Your task to perform on an android device: open wifi settings Image 0: 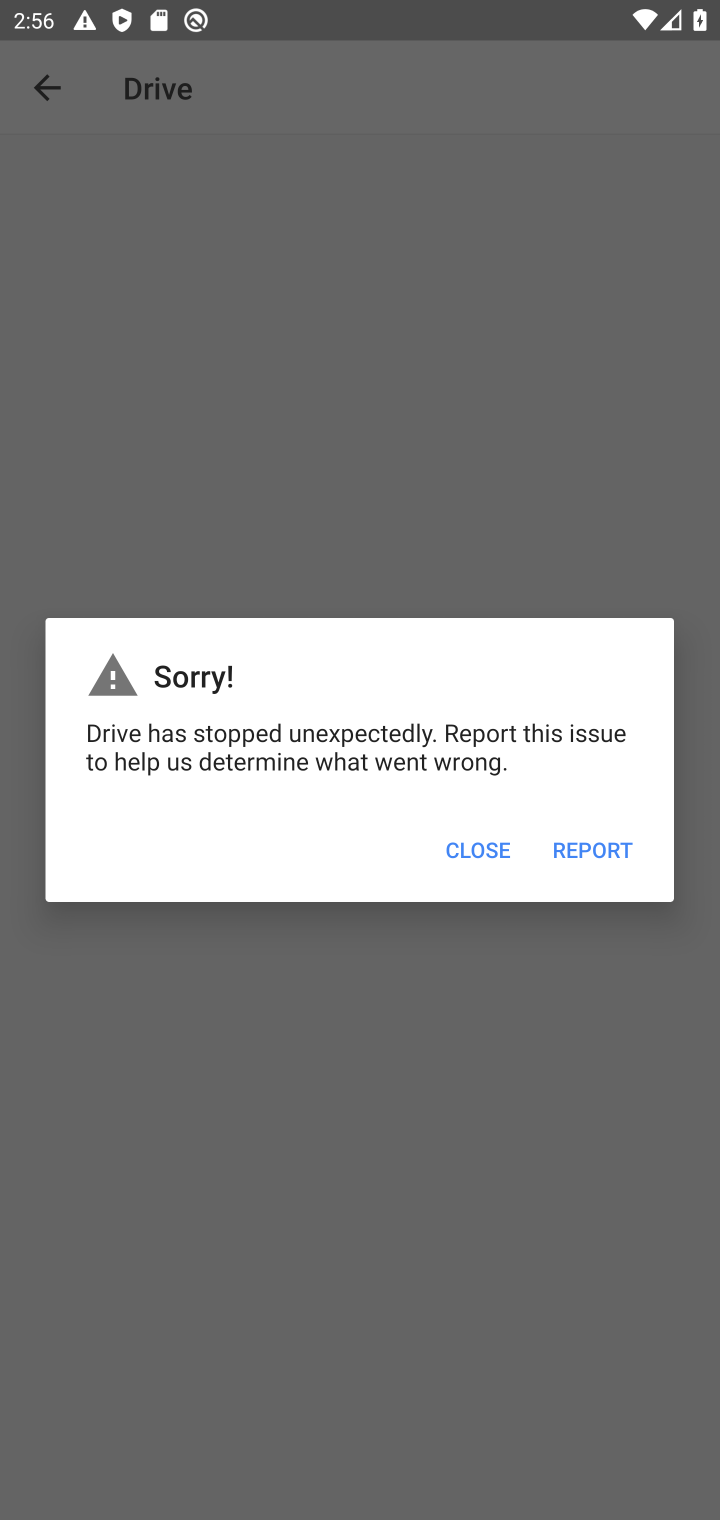
Step 0: press home button
Your task to perform on an android device: open wifi settings Image 1: 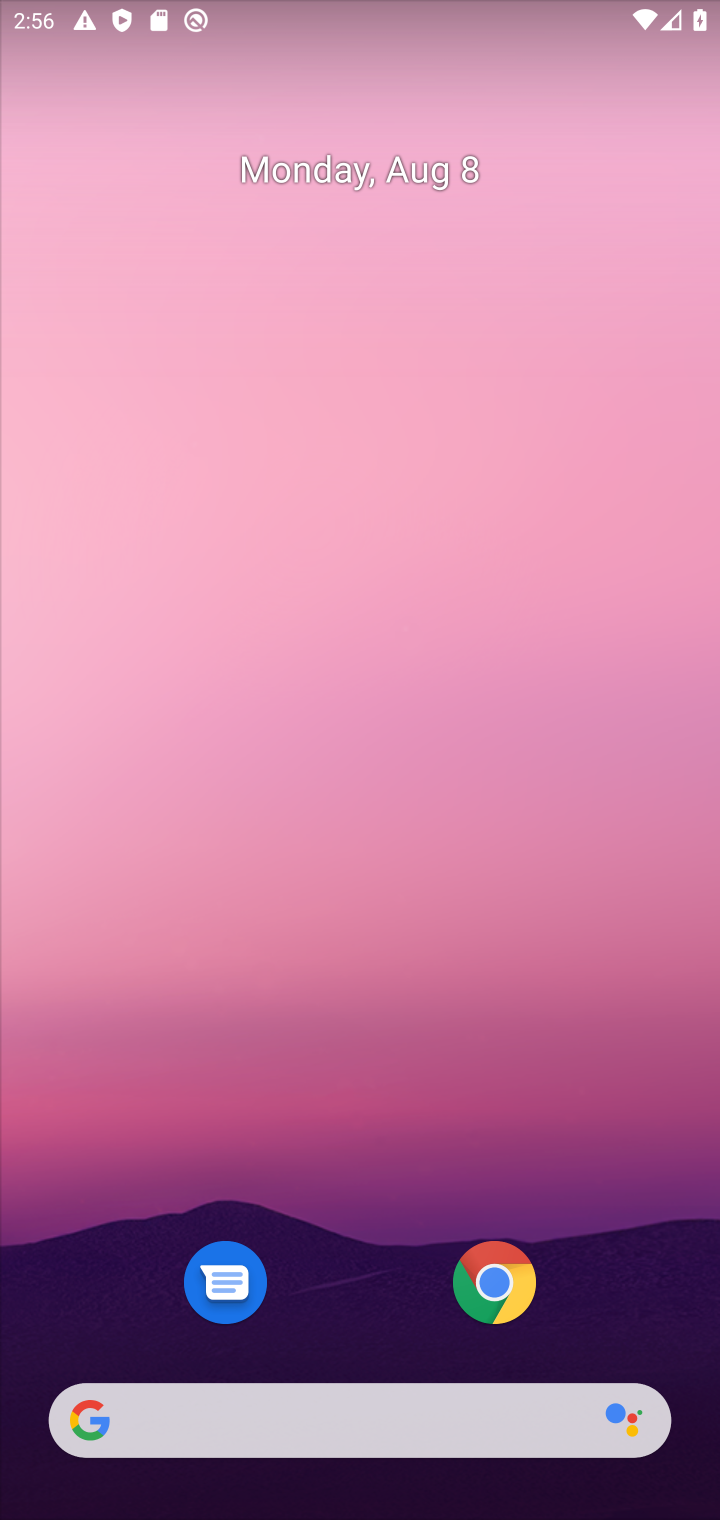
Step 1: drag from (621, 1227) to (596, 145)
Your task to perform on an android device: open wifi settings Image 2: 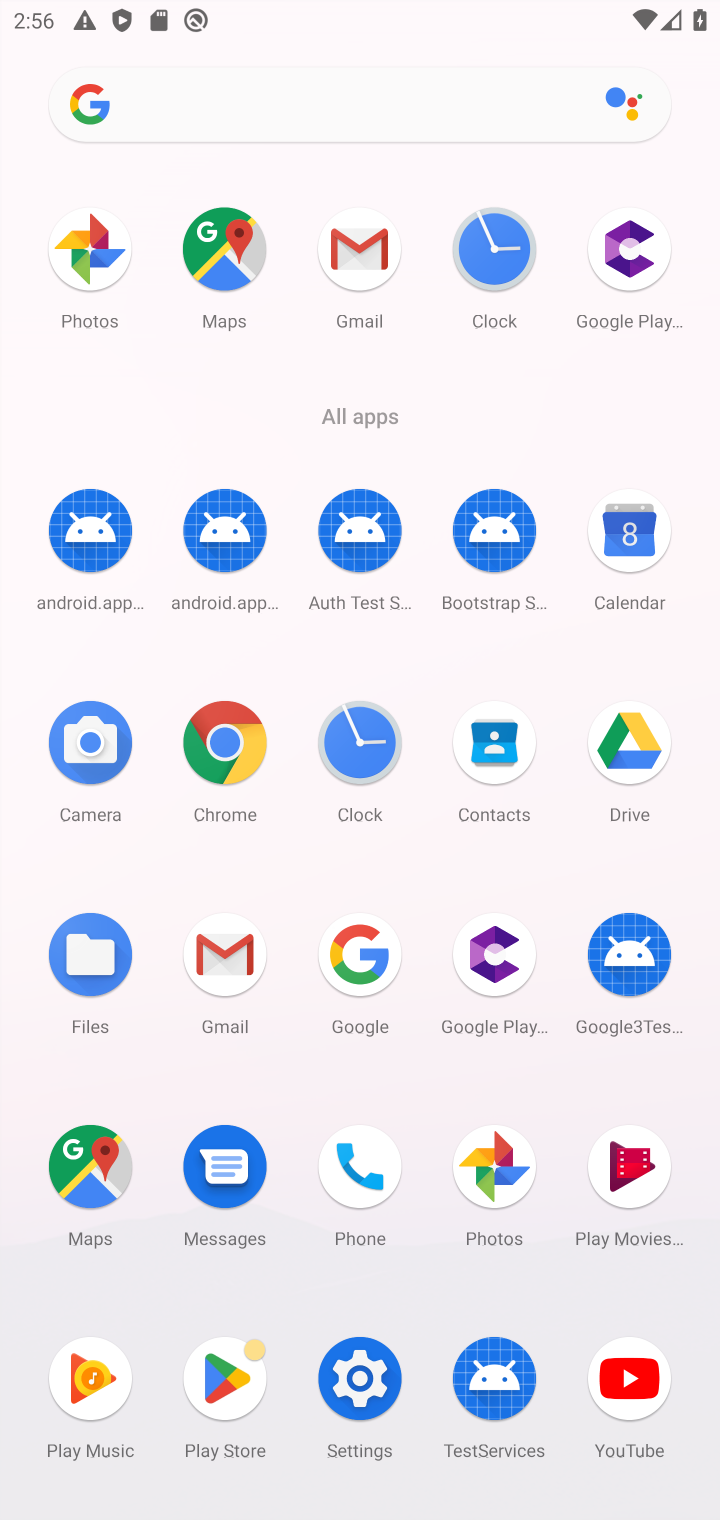
Step 2: click (353, 1375)
Your task to perform on an android device: open wifi settings Image 3: 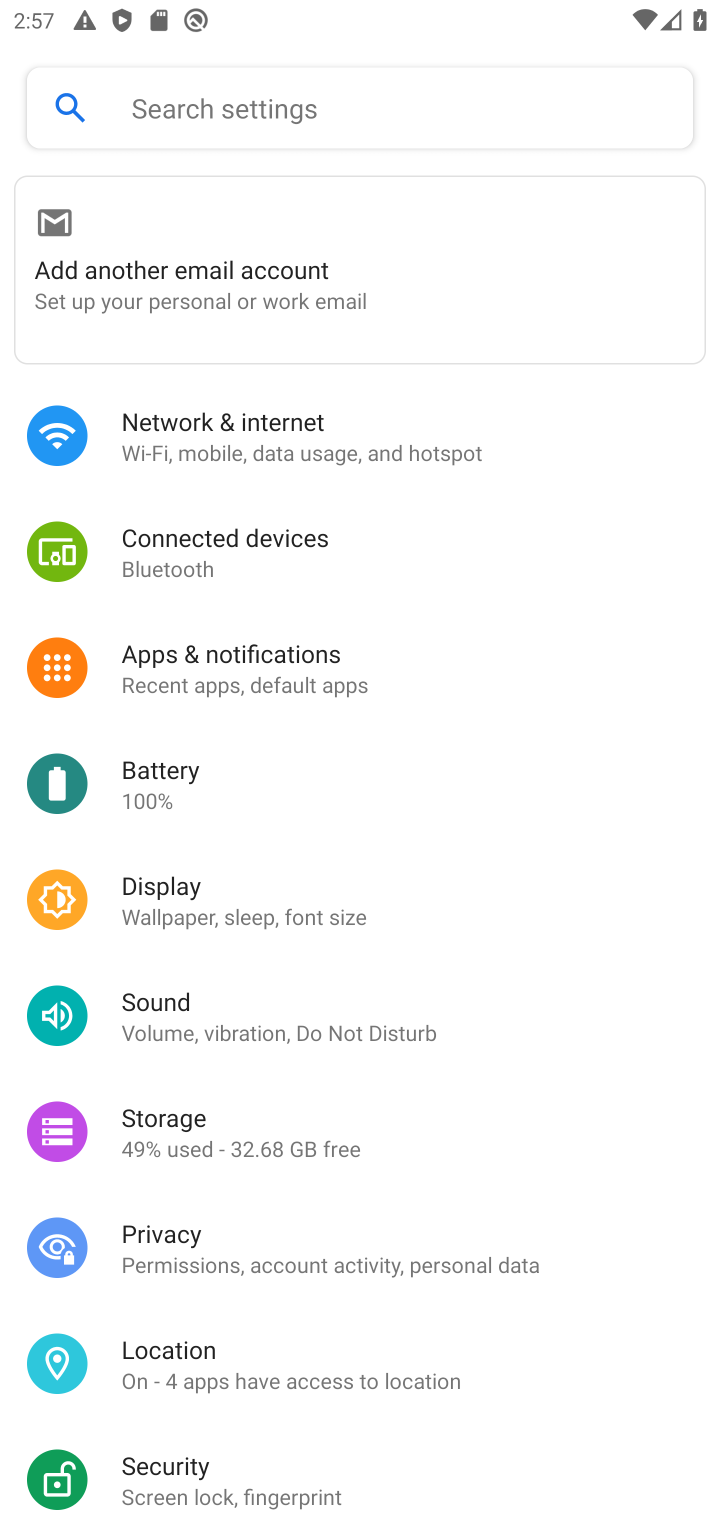
Step 3: click (312, 423)
Your task to perform on an android device: open wifi settings Image 4: 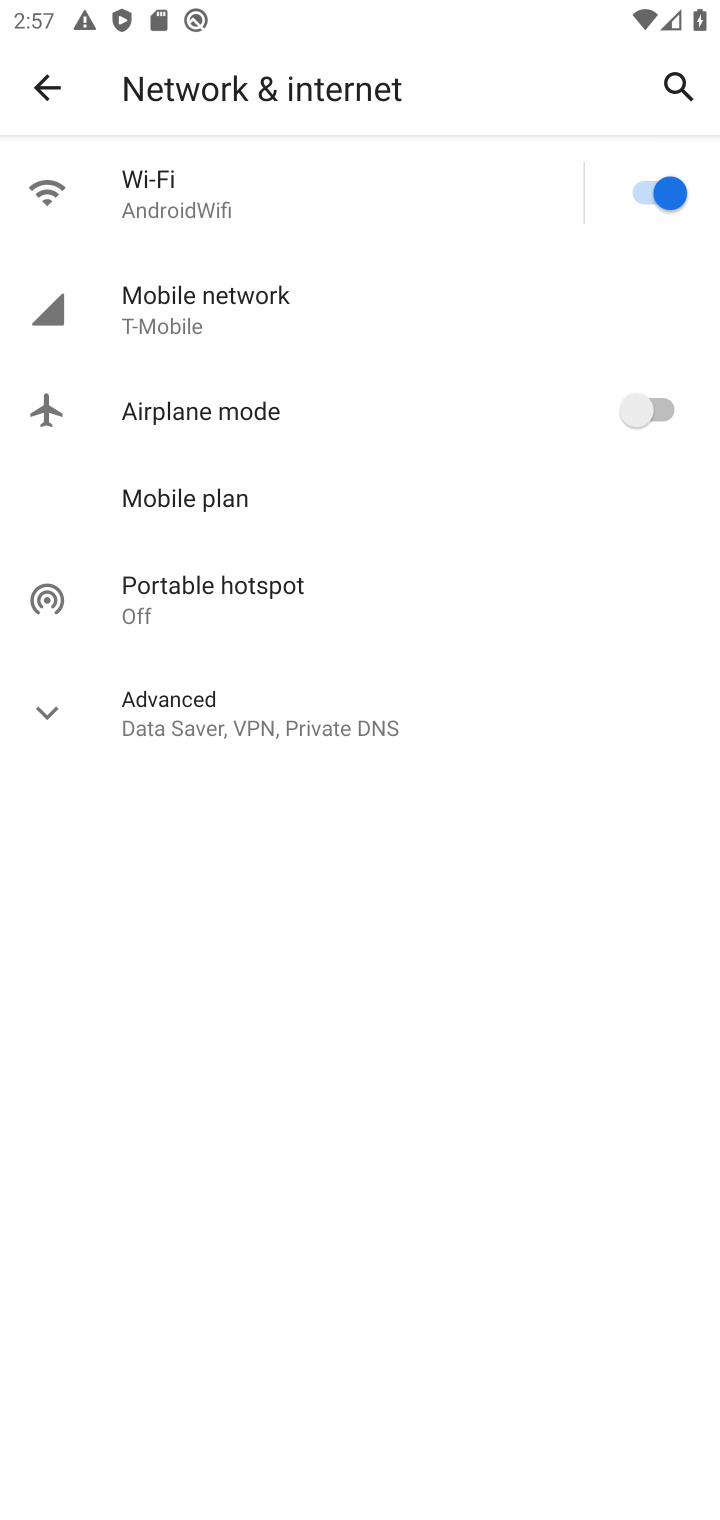
Step 4: click (426, 180)
Your task to perform on an android device: open wifi settings Image 5: 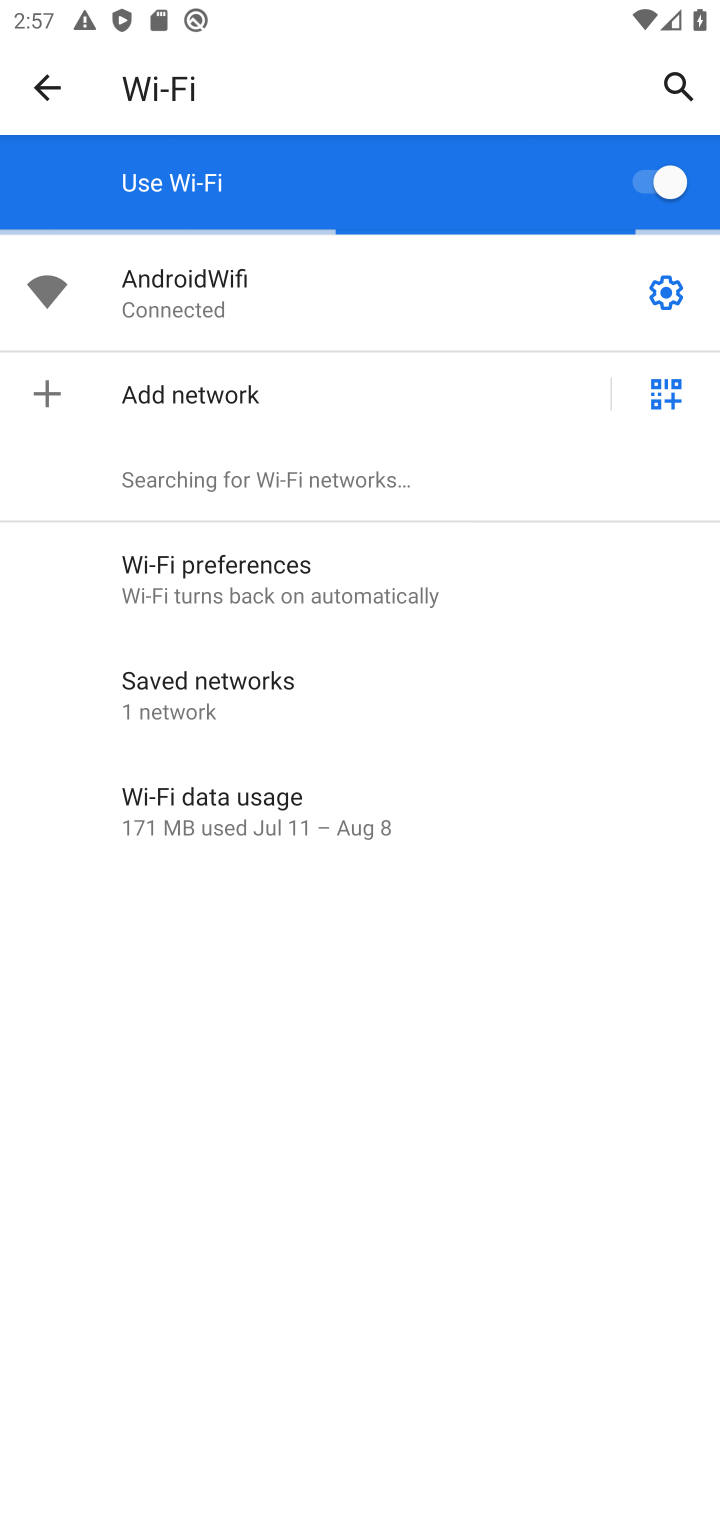
Step 5: click (675, 288)
Your task to perform on an android device: open wifi settings Image 6: 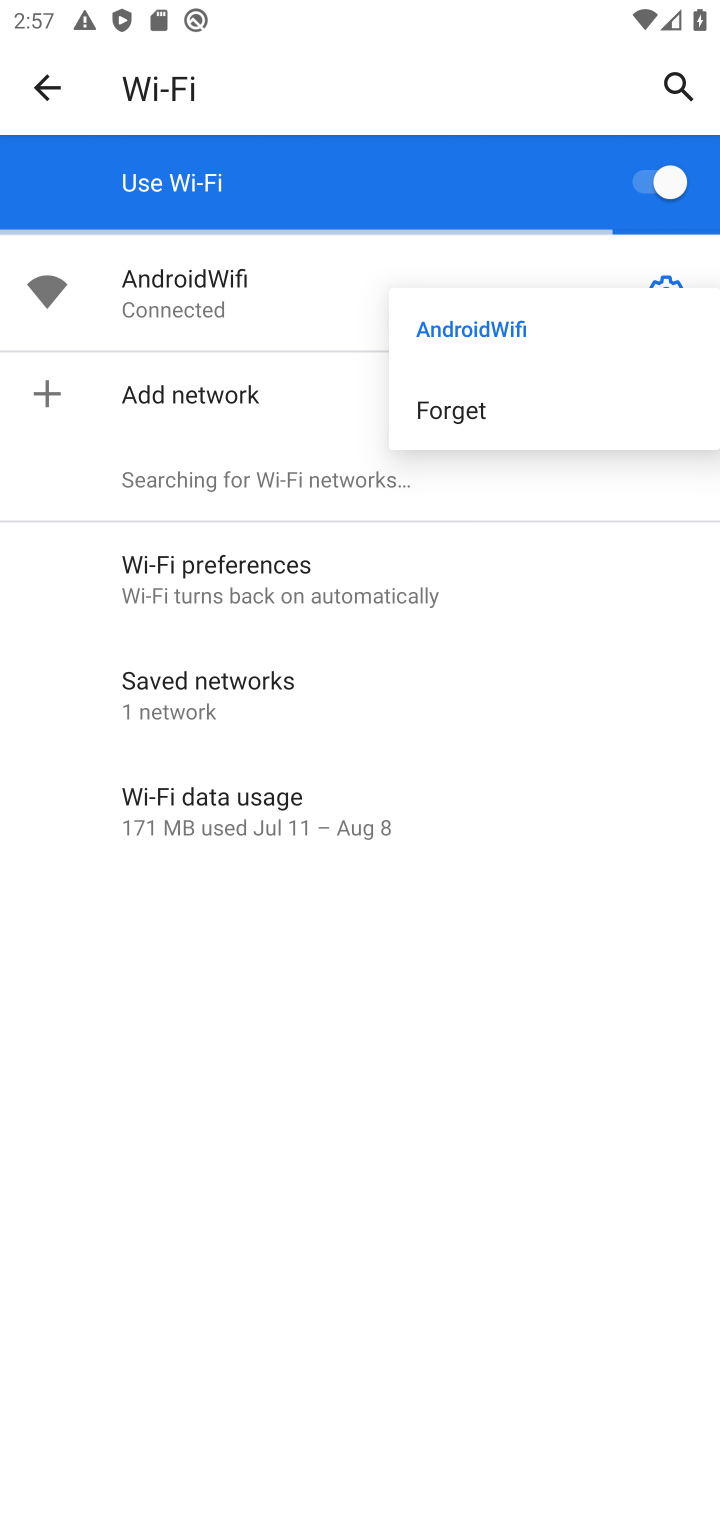
Step 6: click (589, 1116)
Your task to perform on an android device: open wifi settings Image 7: 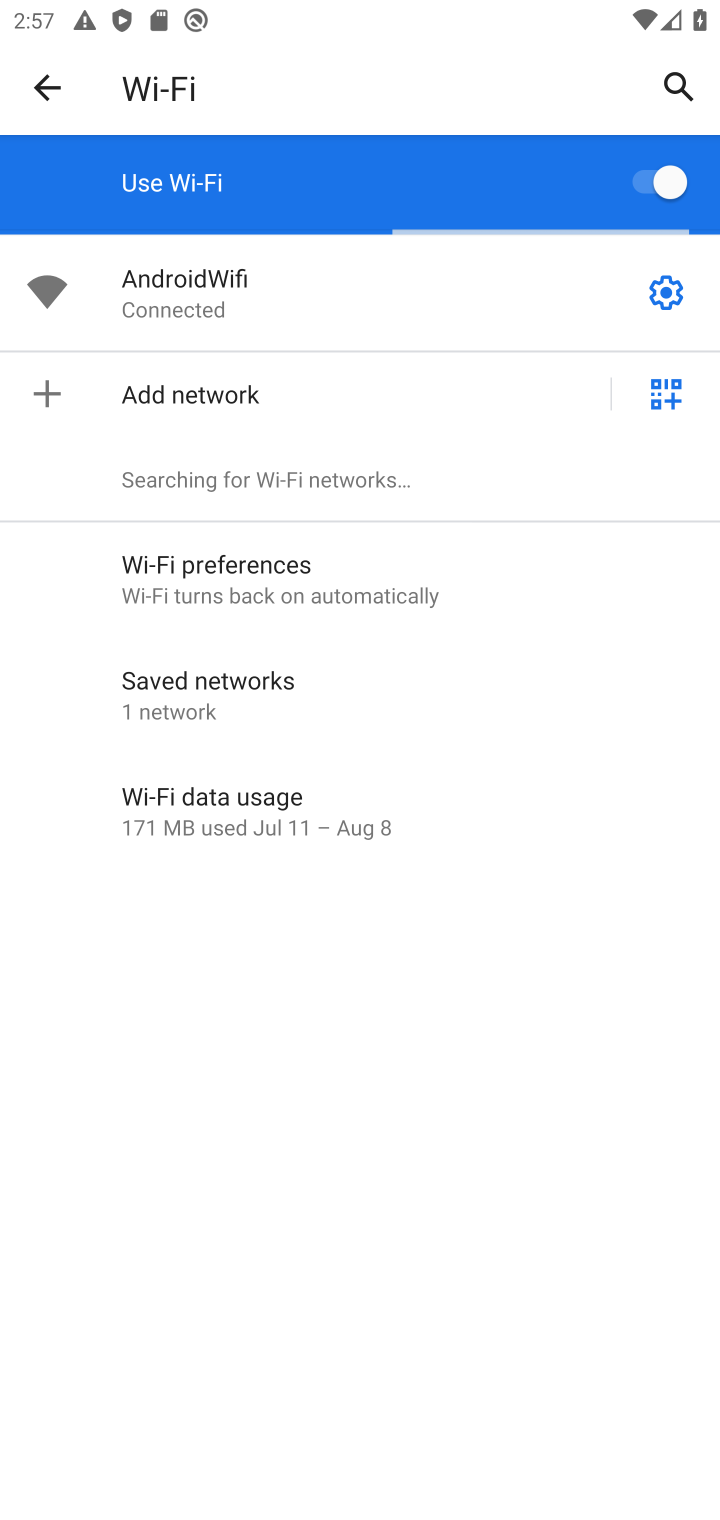
Step 7: click (685, 285)
Your task to perform on an android device: open wifi settings Image 8: 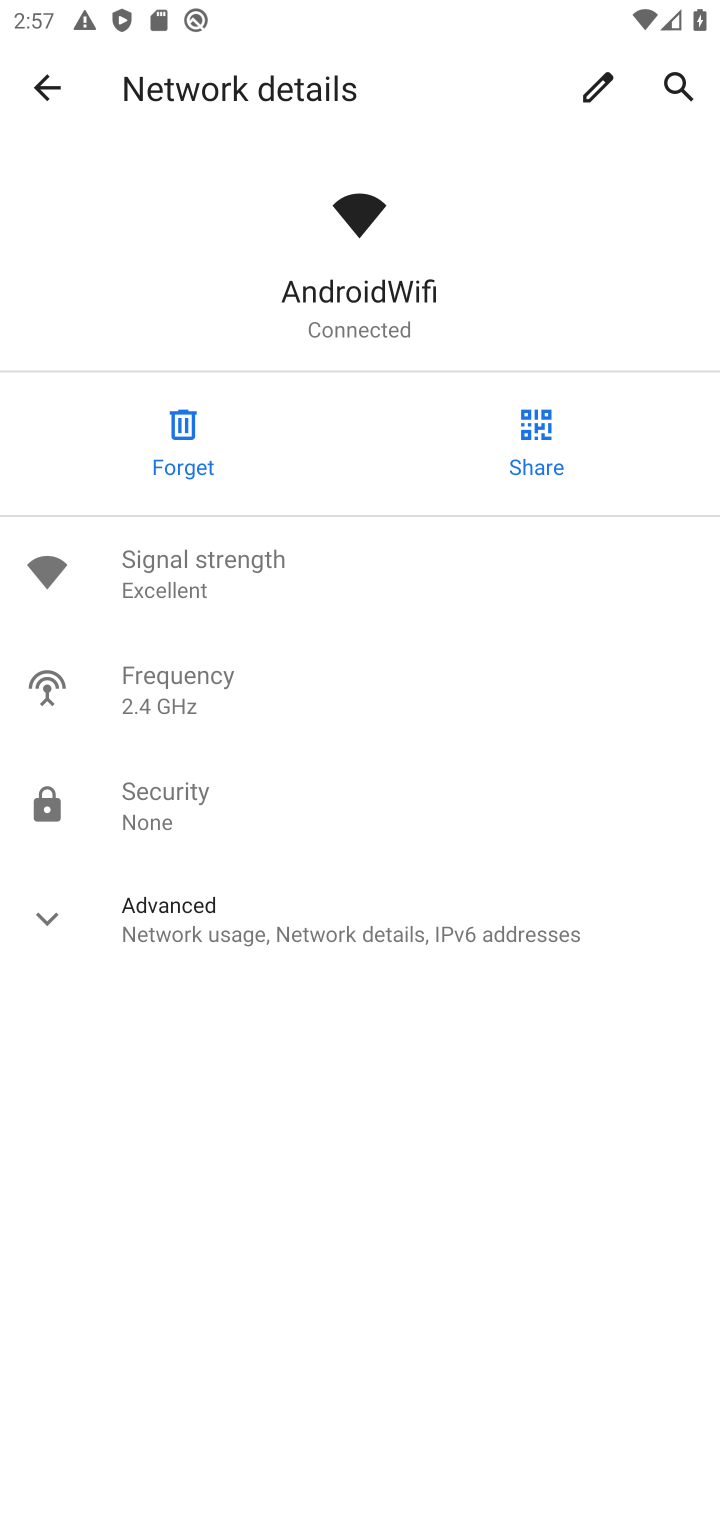
Step 8: task complete